Your task to perform on an android device: change the clock style Image 0: 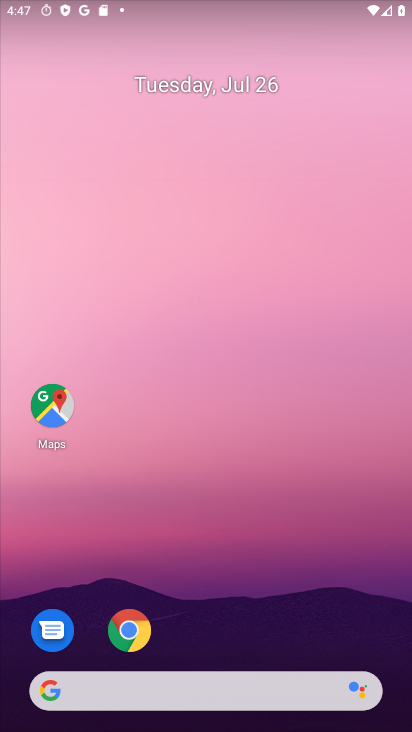
Step 0: drag from (283, 552) to (216, 110)
Your task to perform on an android device: change the clock style Image 1: 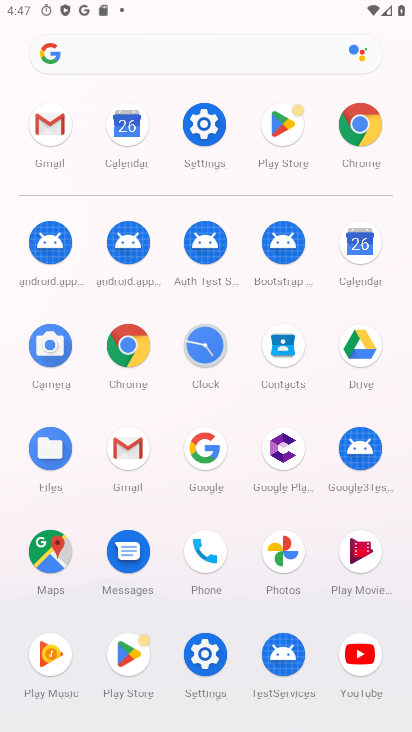
Step 1: click (189, 342)
Your task to perform on an android device: change the clock style Image 2: 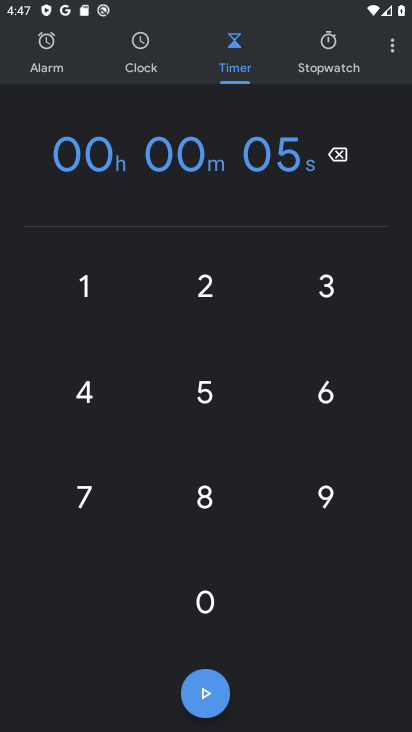
Step 2: click (393, 46)
Your task to perform on an android device: change the clock style Image 3: 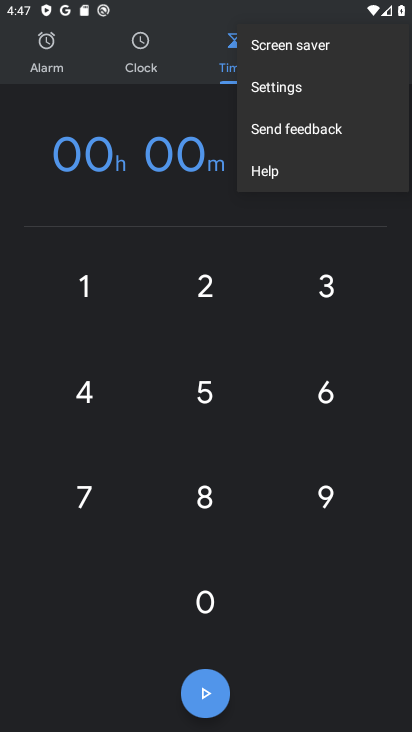
Step 3: click (305, 99)
Your task to perform on an android device: change the clock style Image 4: 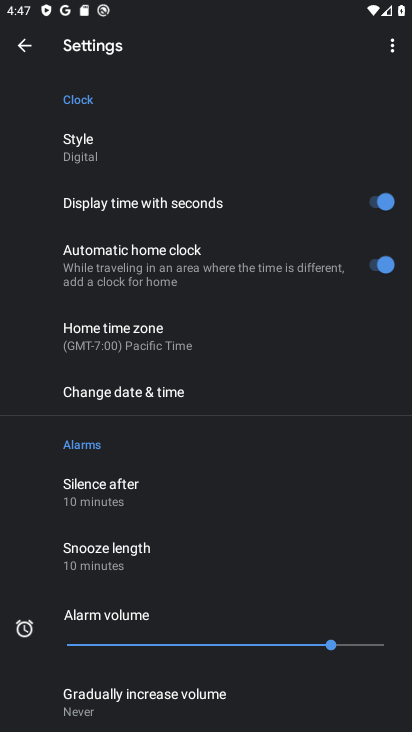
Step 4: click (104, 155)
Your task to perform on an android device: change the clock style Image 5: 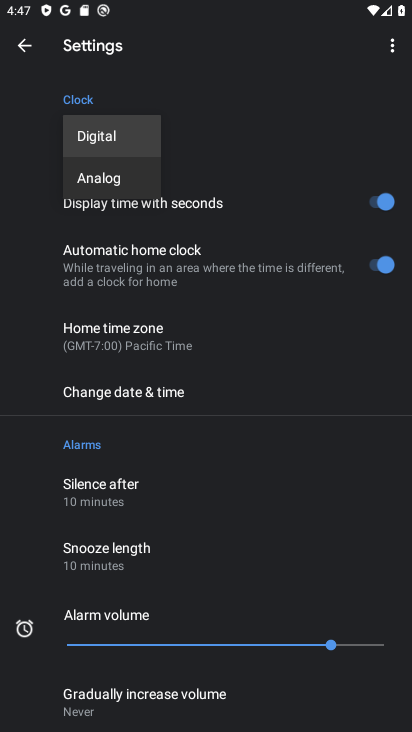
Step 5: click (109, 182)
Your task to perform on an android device: change the clock style Image 6: 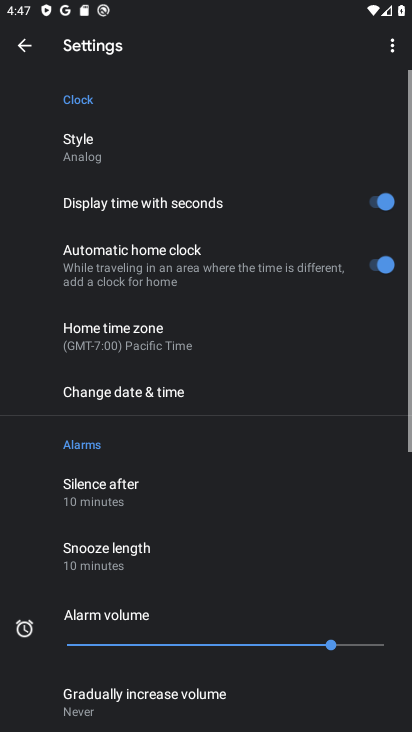
Step 6: task complete